Your task to perform on an android device: set the timer Image 0: 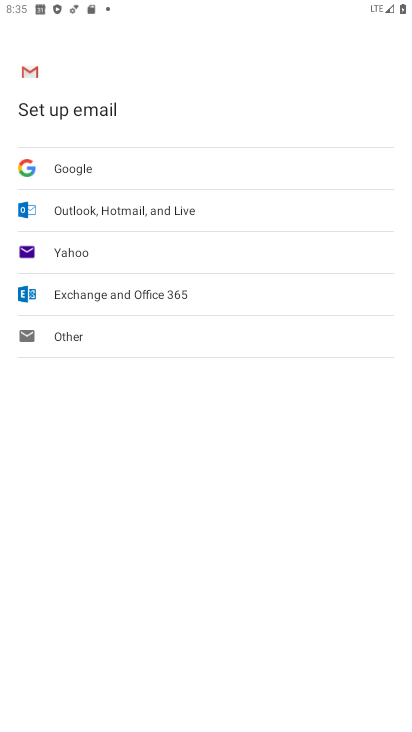
Step 0: press home button
Your task to perform on an android device: set the timer Image 1: 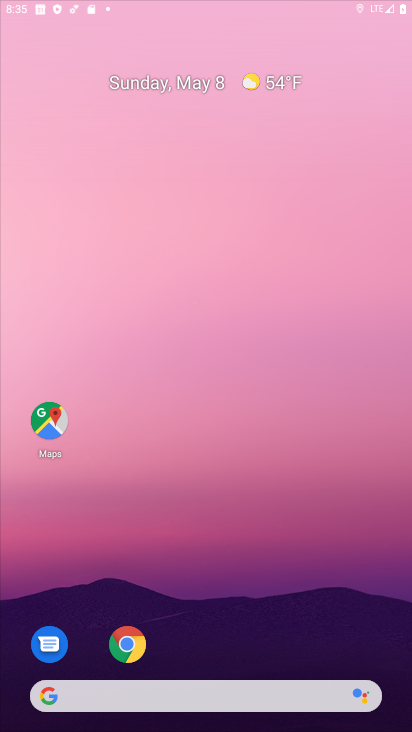
Step 1: drag from (171, 646) to (250, 129)
Your task to perform on an android device: set the timer Image 2: 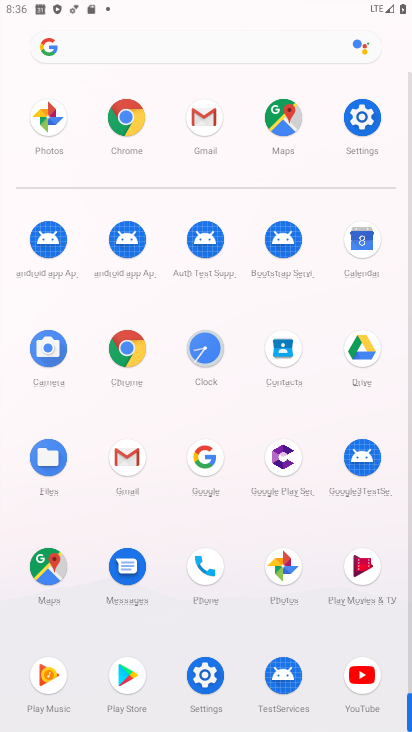
Step 2: click (209, 343)
Your task to perform on an android device: set the timer Image 3: 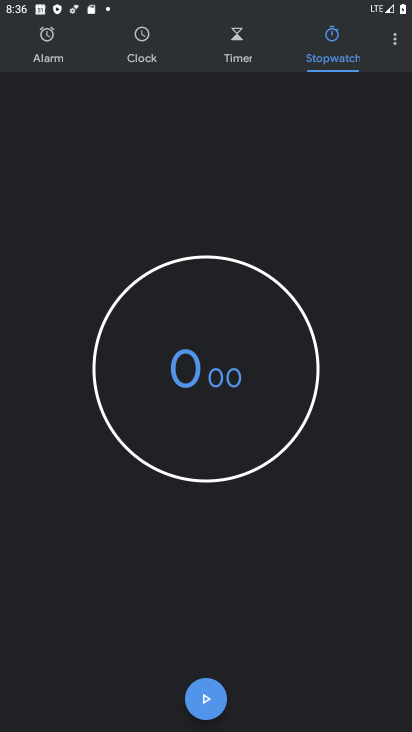
Step 3: click (228, 40)
Your task to perform on an android device: set the timer Image 4: 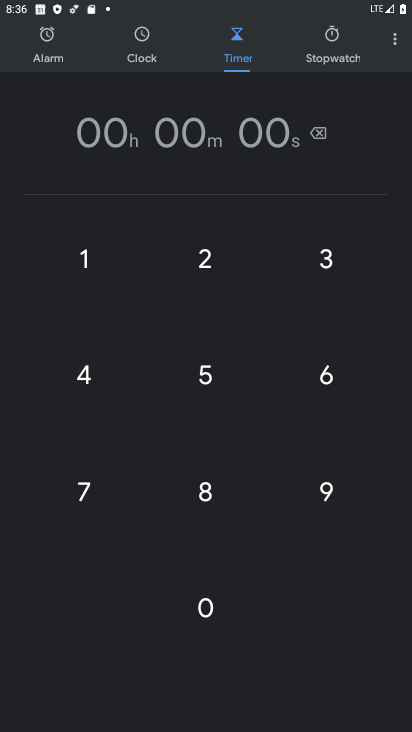
Step 4: click (159, 39)
Your task to perform on an android device: set the timer Image 5: 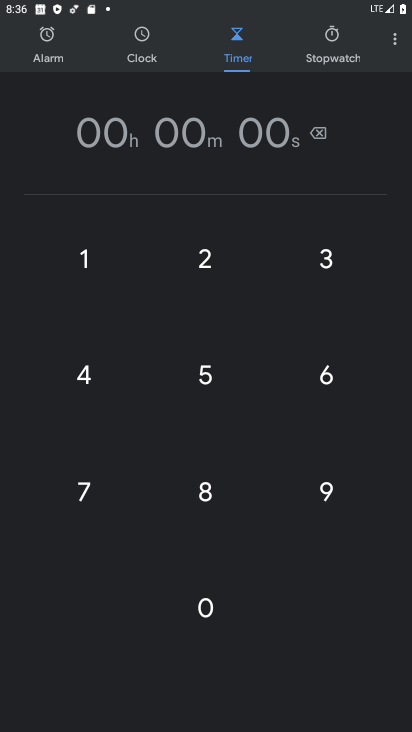
Step 5: click (148, 38)
Your task to perform on an android device: set the timer Image 6: 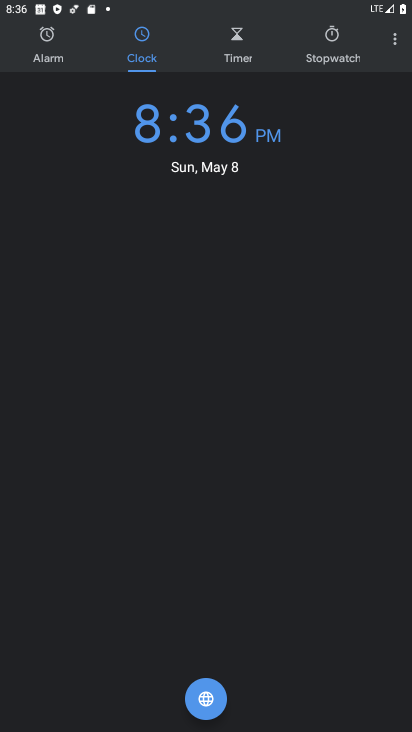
Step 6: click (236, 51)
Your task to perform on an android device: set the timer Image 7: 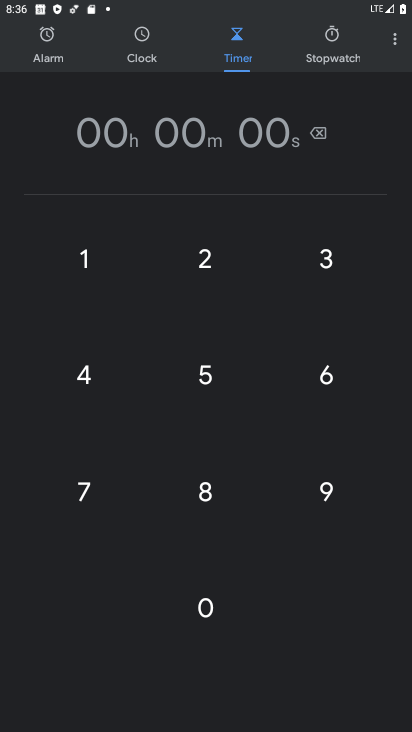
Step 7: click (326, 53)
Your task to perform on an android device: set the timer Image 8: 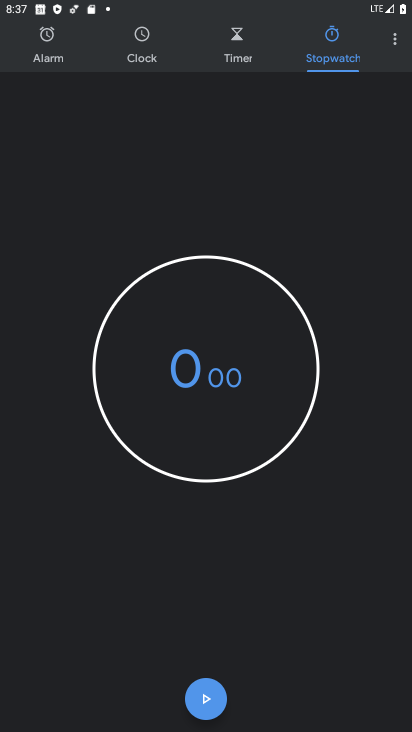
Step 8: click (236, 48)
Your task to perform on an android device: set the timer Image 9: 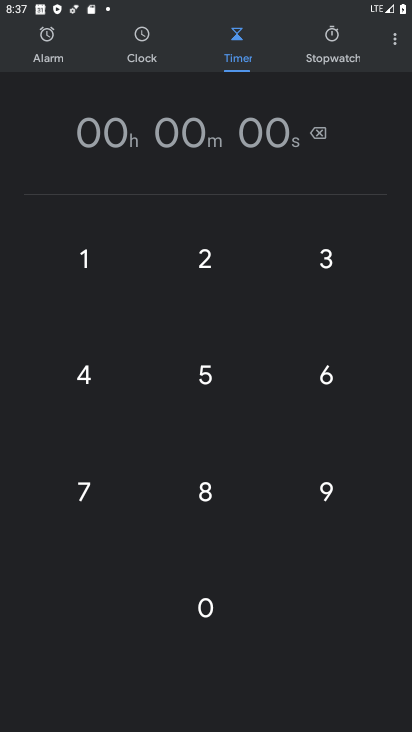
Step 9: click (394, 48)
Your task to perform on an android device: set the timer Image 10: 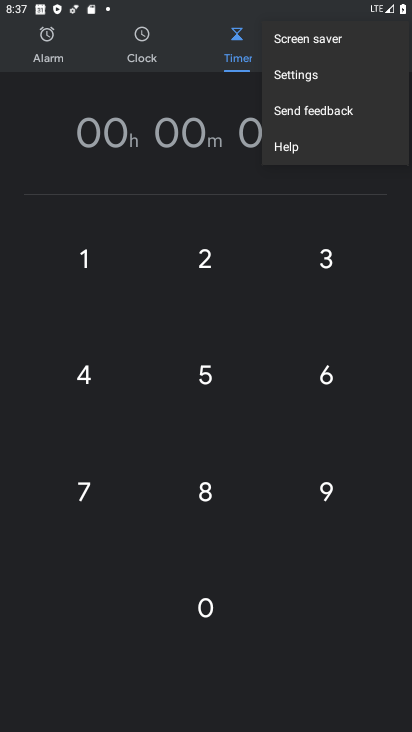
Step 10: click (303, 76)
Your task to perform on an android device: set the timer Image 11: 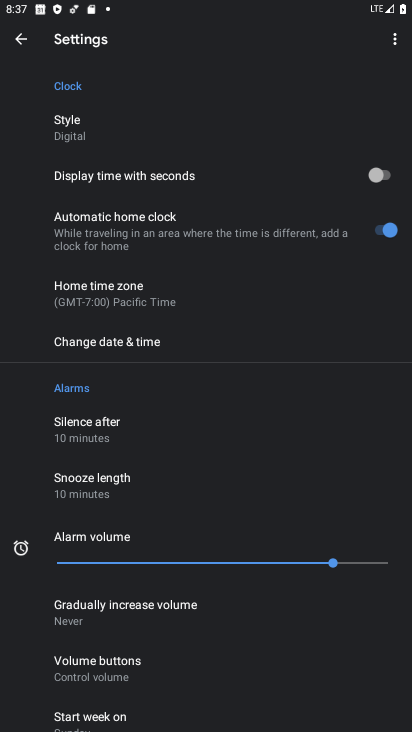
Step 11: click (23, 35)
Your task to perform on an android device: set the timer Image 12: 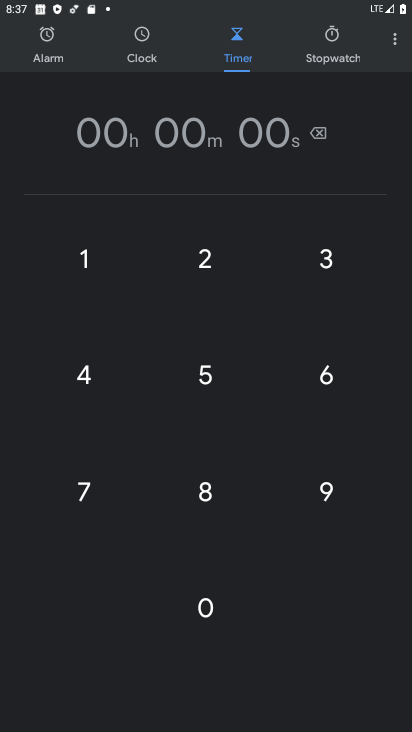
Step 12: click (150, 56)
Your task to perform on an android device: set the timer Image 13: 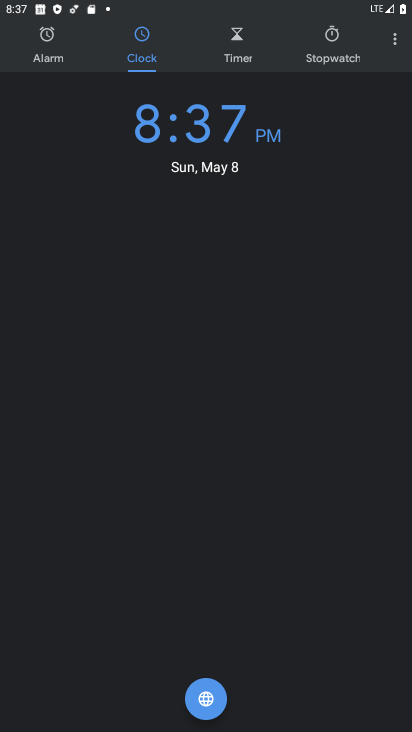
Step 13: click (242, 47)
Your task to perform on an android device: set the timer Image 14: 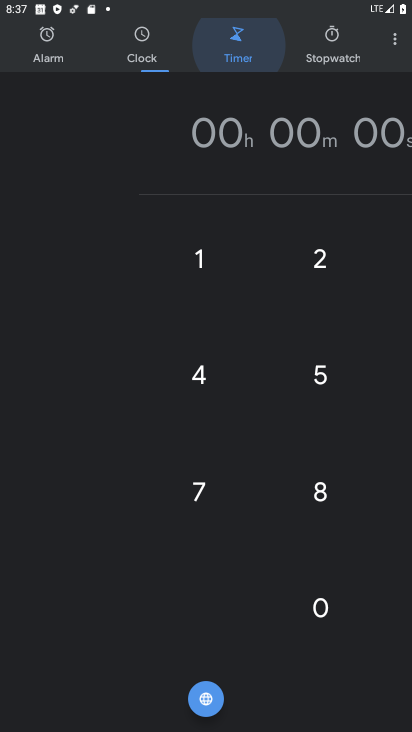
Step 14: click (345, 46)
Your task to perform on an android device: set the timer Image 15: 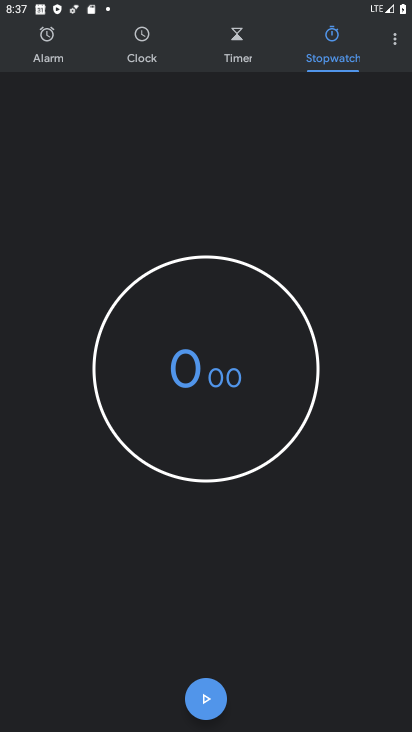
Step 15: click (239, 39)
Your task to perform on an android device: set the timer Image 16: 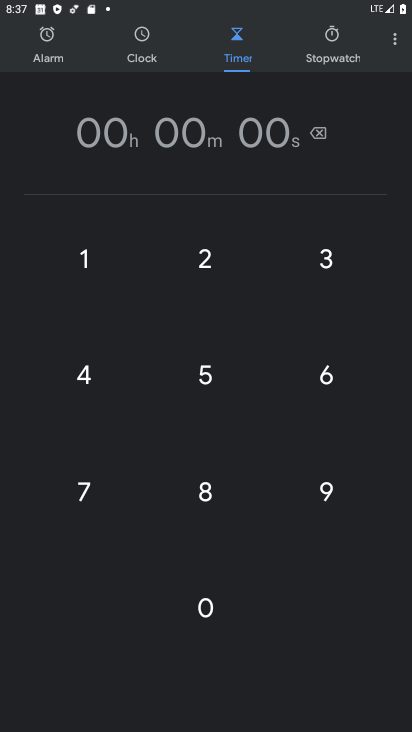
Step 16: click (151, 57)
Your task to perform on an android device: set the timer Image 17: 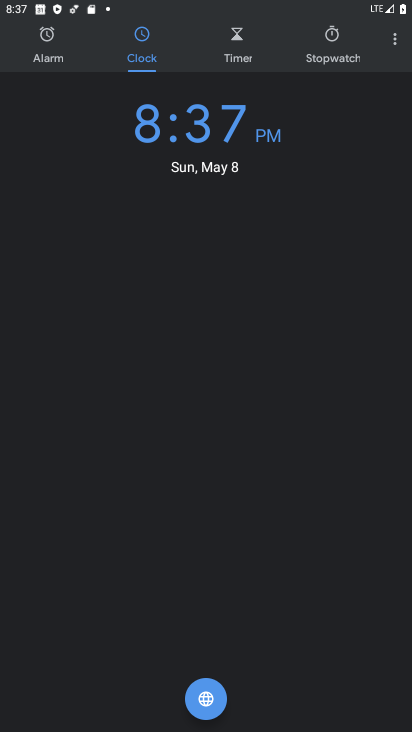
Step 17: click (223, 55)
Your task to perform on an android device: set the timer Image 18: 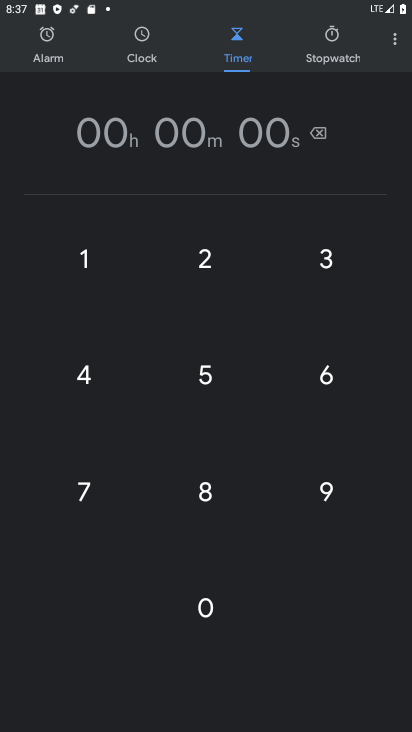
Step 18: click (208, 251)
Your task to perform on an android device: set the timer Image 19: 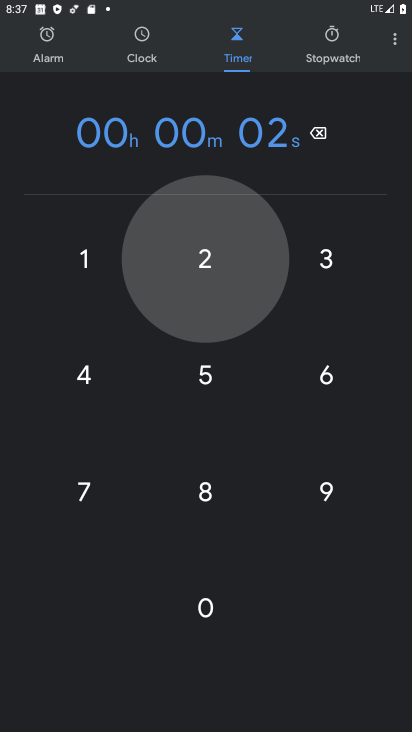
Step 19: click (351, 251)
Your task to perform on an android device: set the timer Image 20: 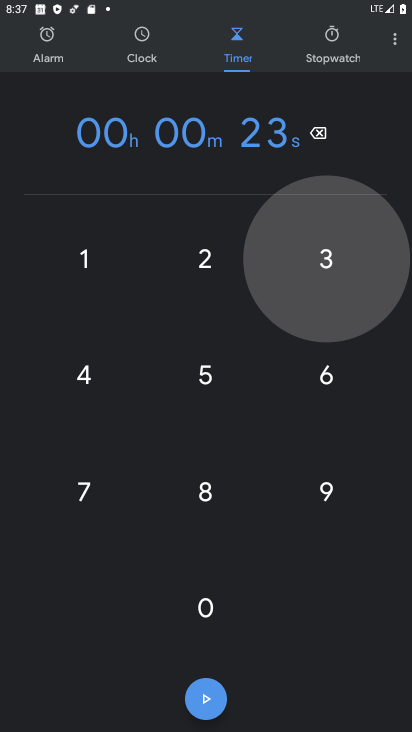
Step 20: click (182, 381)
Your task to perform on an android device: set the timer Image 21: 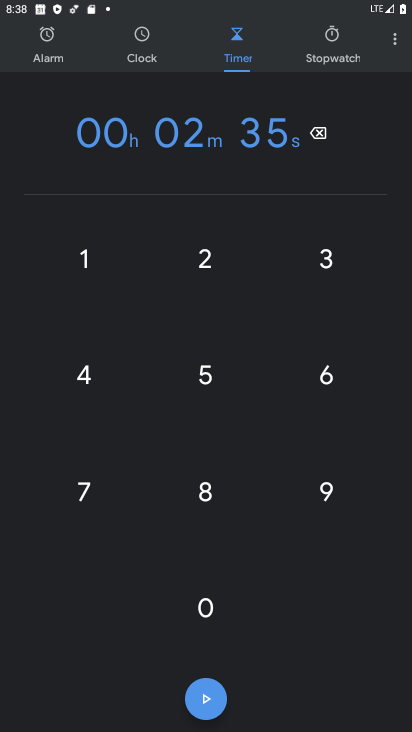
Step 21: task complete